Your task to perform on an android device: Open notification settings Image 0: 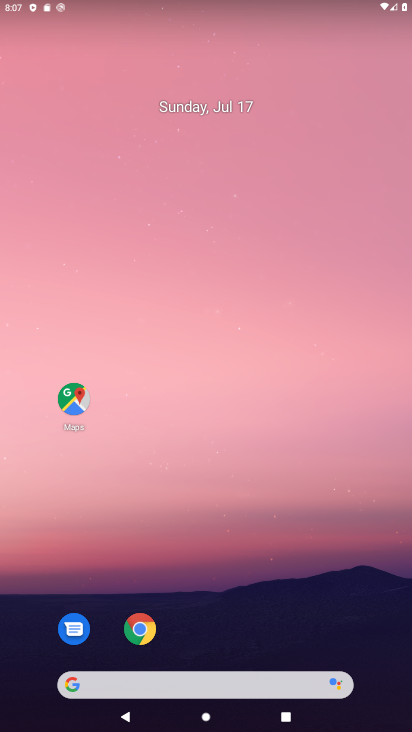
Step 0: drag from (228, 579) to (261, 31)
Your task to perform on an android device: Open notification settings Image 1: 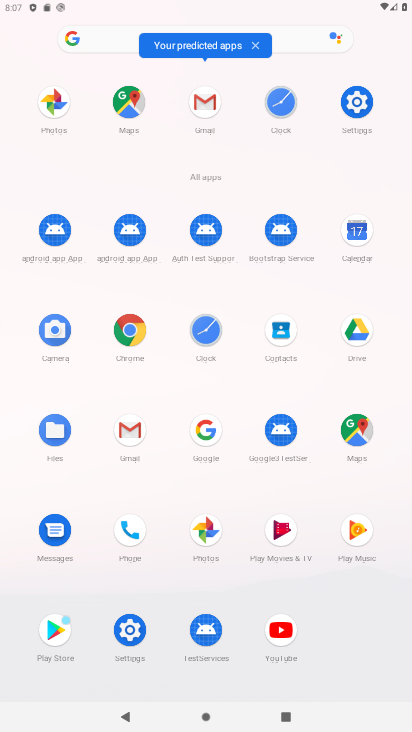
Step 1: click (350, 108)
Your task to perform on an android device: Open notification settings Image 2: 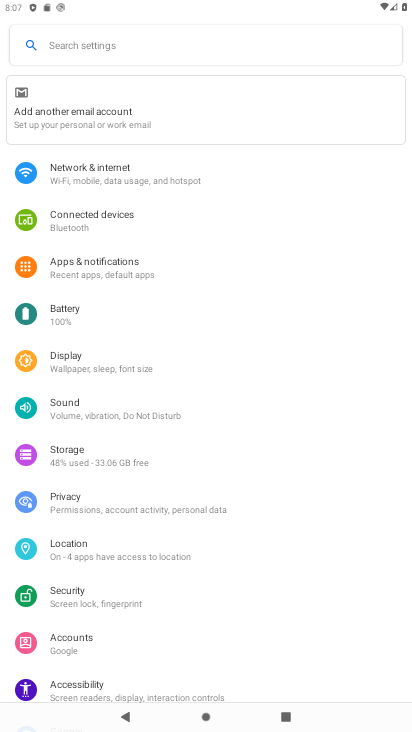
Step 2: click (120, 272)
Your task to perform on an android device: Open notification settings Image 3: 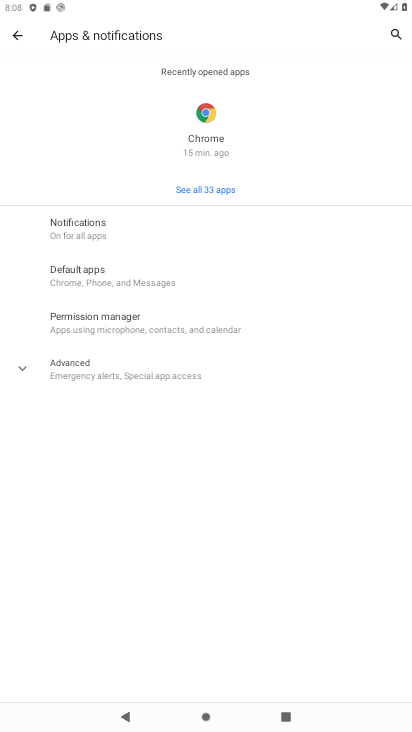
Step 3: click (85, 225)
Your task to perform on an android device: Open notification settings Image 4: 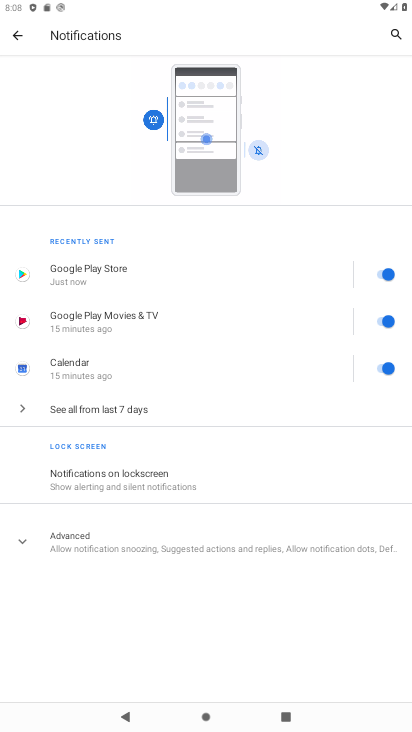
Step 4: task complete